Your task to perform on an android device: check battery use Image 0: 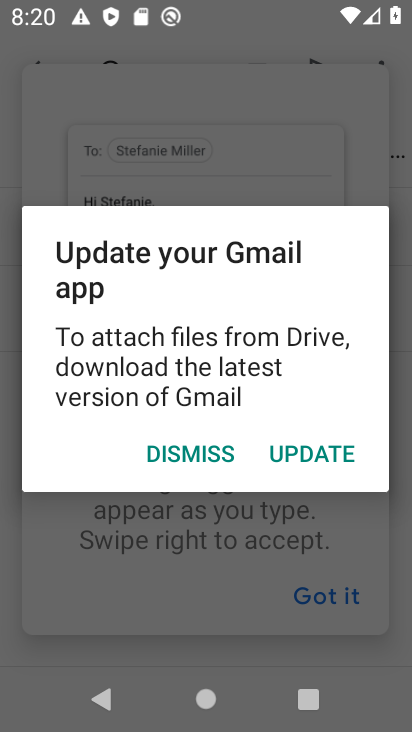
Step 0: press home button
Your task to perform on an android device: check battery use Image 1: 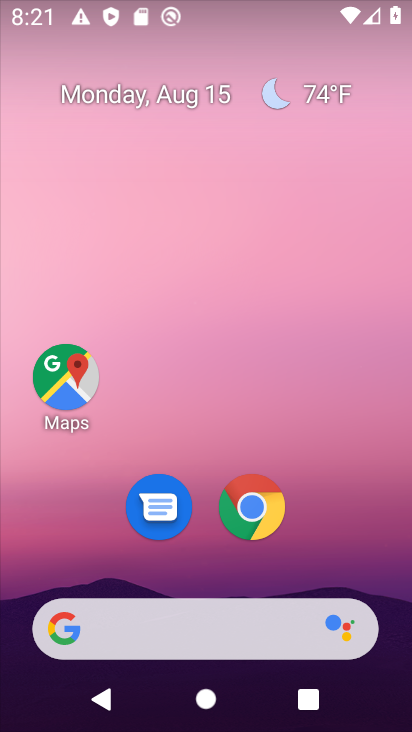
Step 1: drag from (124, 625) to (192, 124)
Your task to perform on an android device: check battery use Image 2: 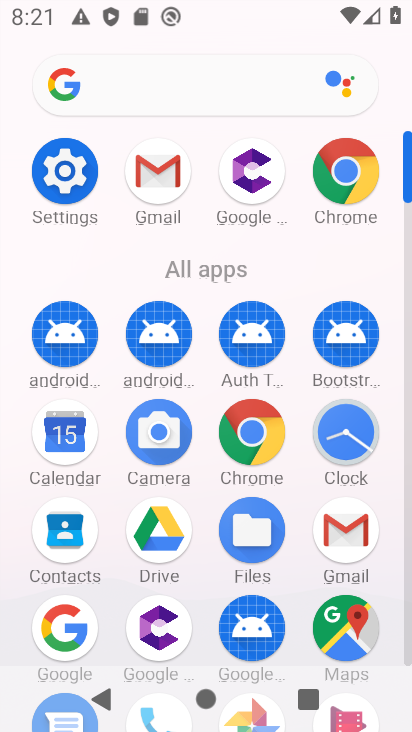
Step 2: drag from (162, 620) to (131, 128)
Your task to perform on an android device: check battery use Image 3: 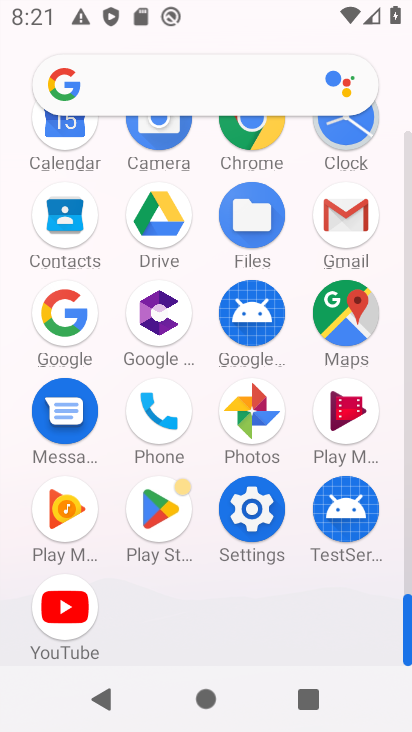
Step 3: click (256, 530)
Your task to perform on an android device: check battery use Image 4: 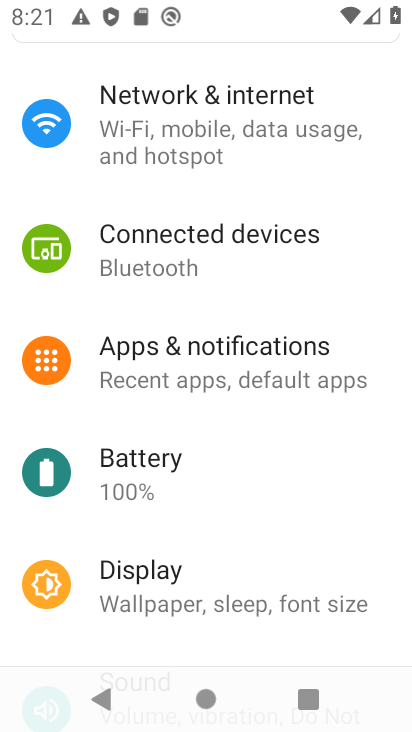
Step 4: drag from (243, 115) to (273, 600)
Your task to perform on an android device: check battery use Image 5: 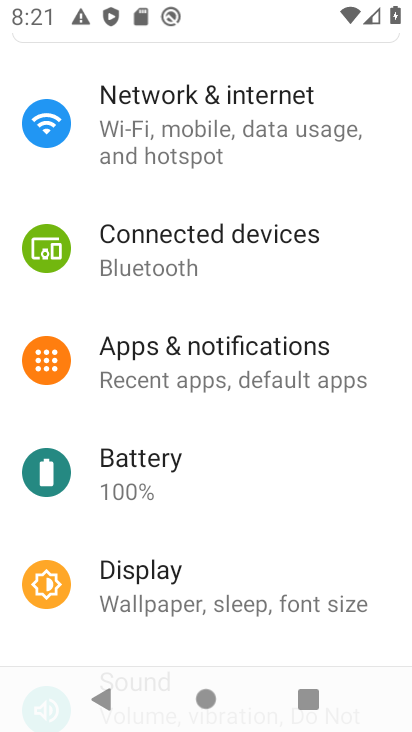
Step 5: click (123, 484)
Your task to perform on an android device: check battery use Image 6: 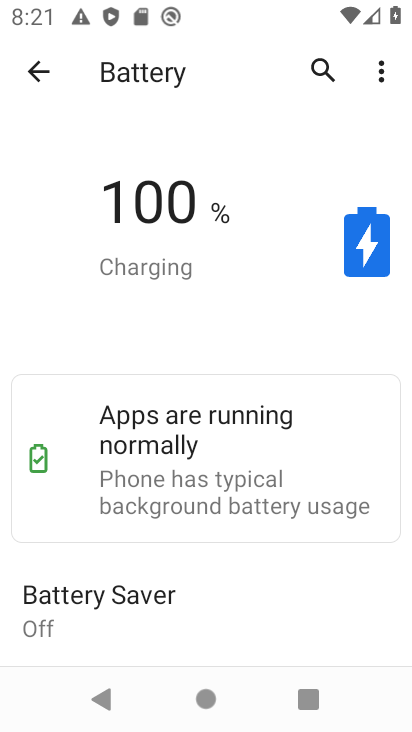
Step 6: task complete